Your task to perform on an android device: clear history in the chrome app Image 0: 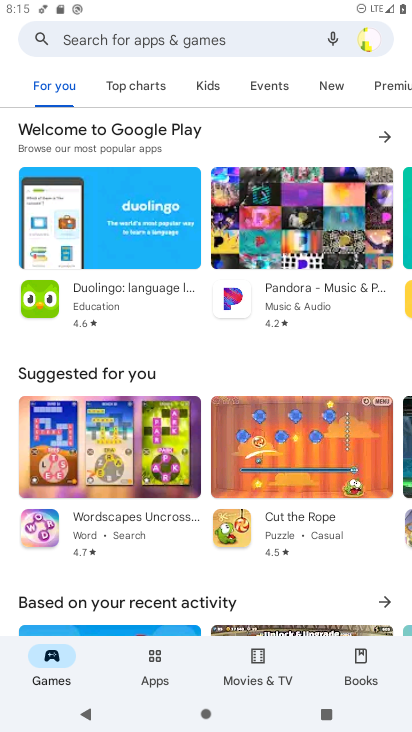
Step 0: press back button
Your task to perform on an android device: clear history in the chrome app Image 1: 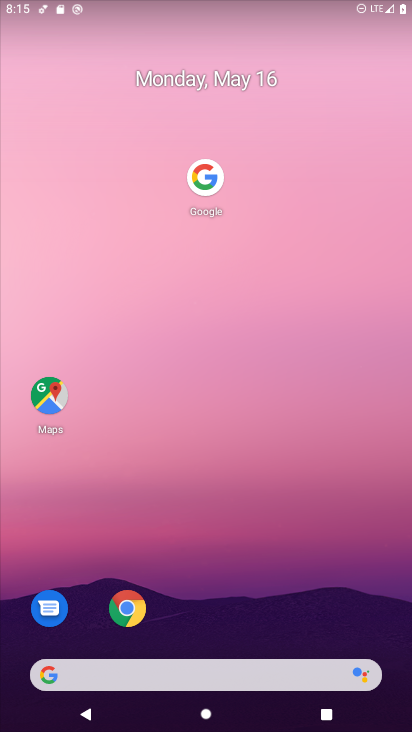
Step 1: click (127, 605)
Your task to perform on an android device: clear history in the chrome app Image 2: 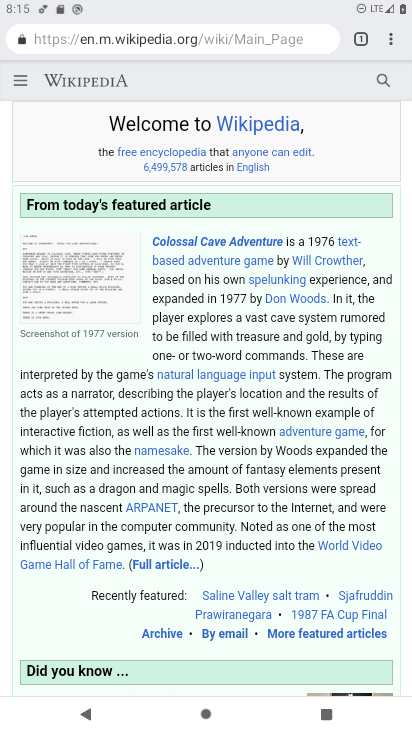
Step 2: click (392, 37)
Your task to perform on an android device: clear history in the chrome app Image 3: 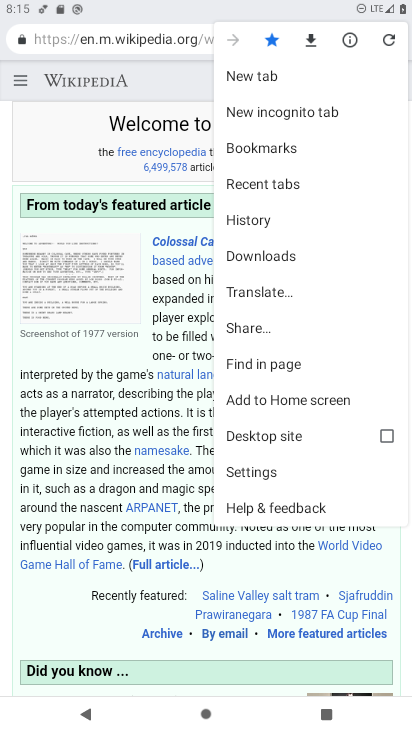
Step 3: click (257, 218)
Your task to perform on an android device: clear history in the chrome app Image 4: 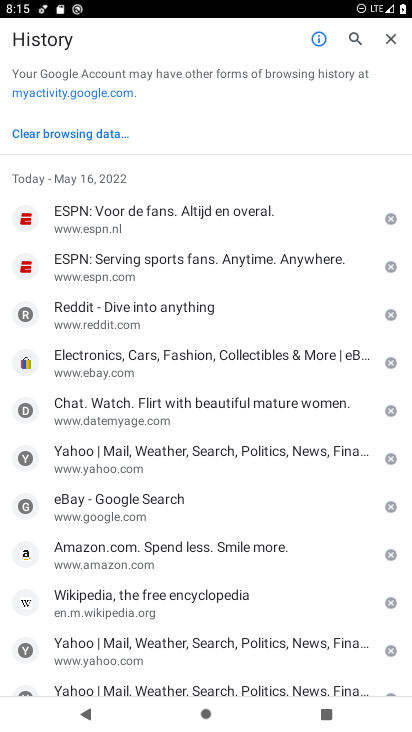
Step 4: click (96, 129)
Your task to perform on an android device: clear history in the chrome app Image 5: 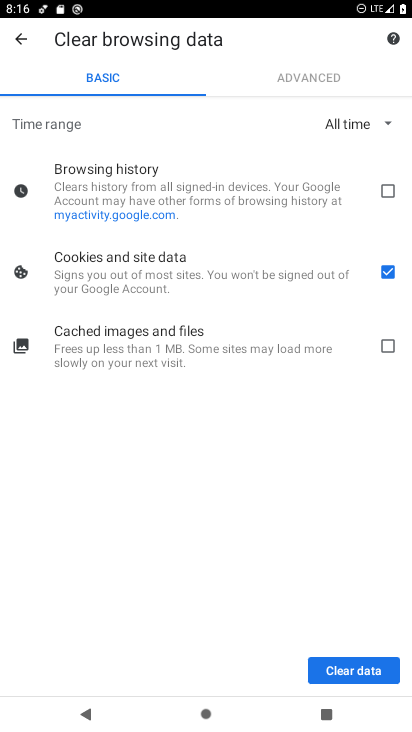
Step 5: click (384, 184)
Your task to perform on an android device: clear history in the chrome app Image 6: 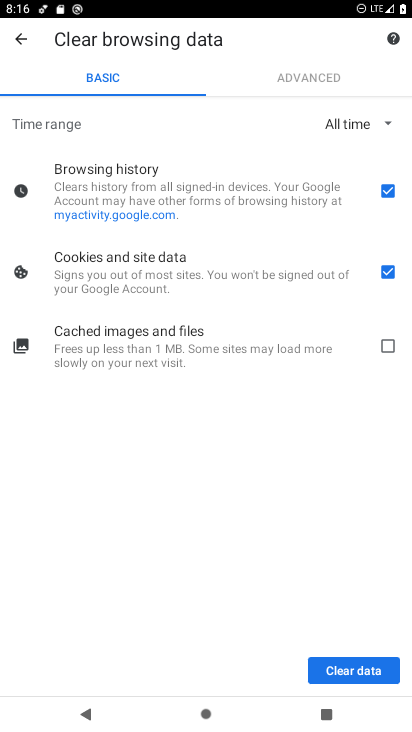
Step 6: click (386, 350)
Your task to perform on an android device: clear history in the chrome app Image 7: 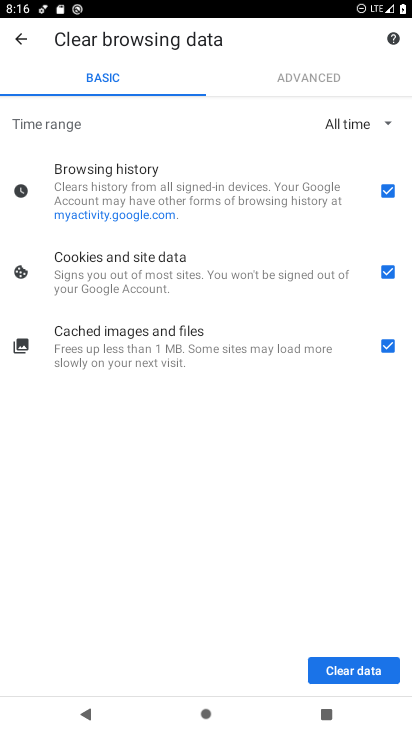
Step 7: click (338, 670)
Your task to perform on an android device: clear history in the chrome app Image 8: 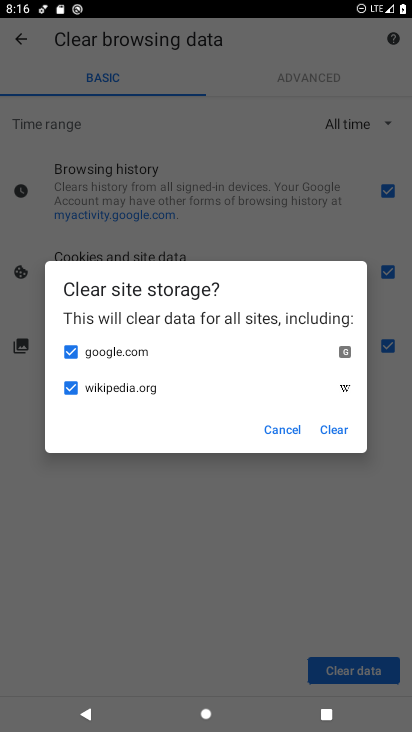
Step 8: click (332, 424)
Your task to perform on an android device: clear history in the chrome app Image 9: 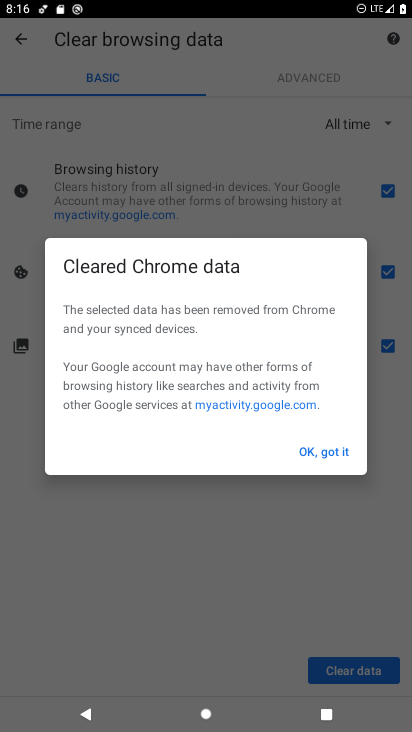
Step 9: click (321, 452)
Your task to perform on an android device: clear history in the chrome app Image 10: 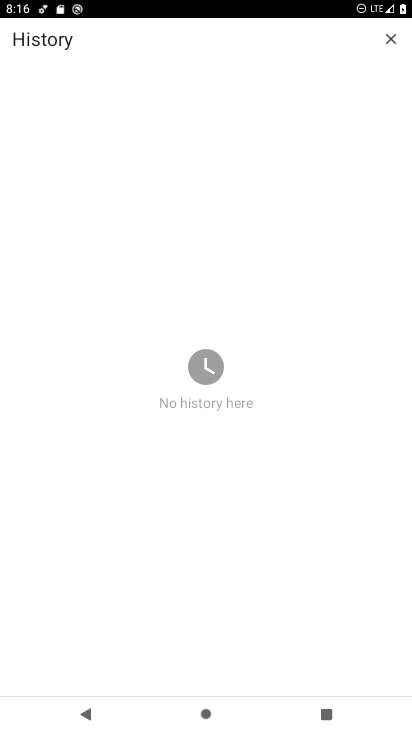
Step 10: task complete